Your task to perform on an android device: open app "DoorDash - Food Delivery" (install if not already installed) Image 0: 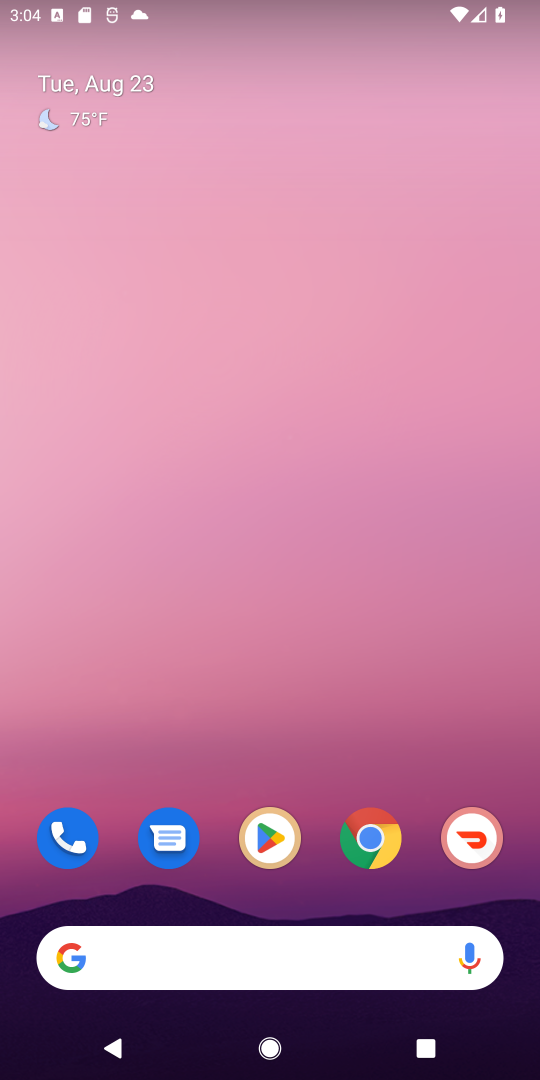
Step 0: click (260, 819)
Your task to perform on an android device: open app "DoorDash - Food Delivery" (install if not already installed) Image 1: 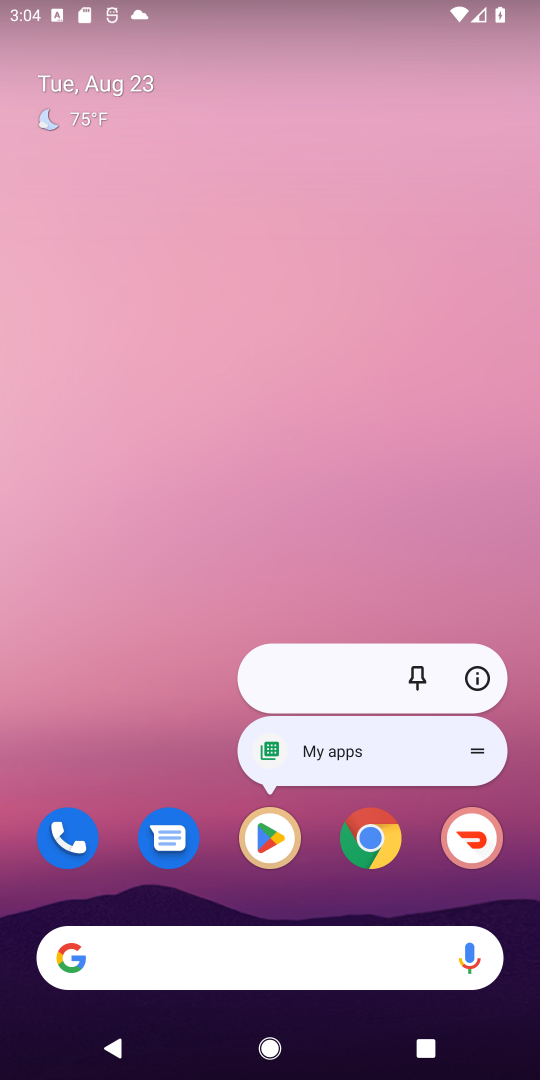
Step 1: click (275, 866)
Your task to perform on an android device: open app "DoorDash - Food Delivery" (install if not already installed) Image 2: 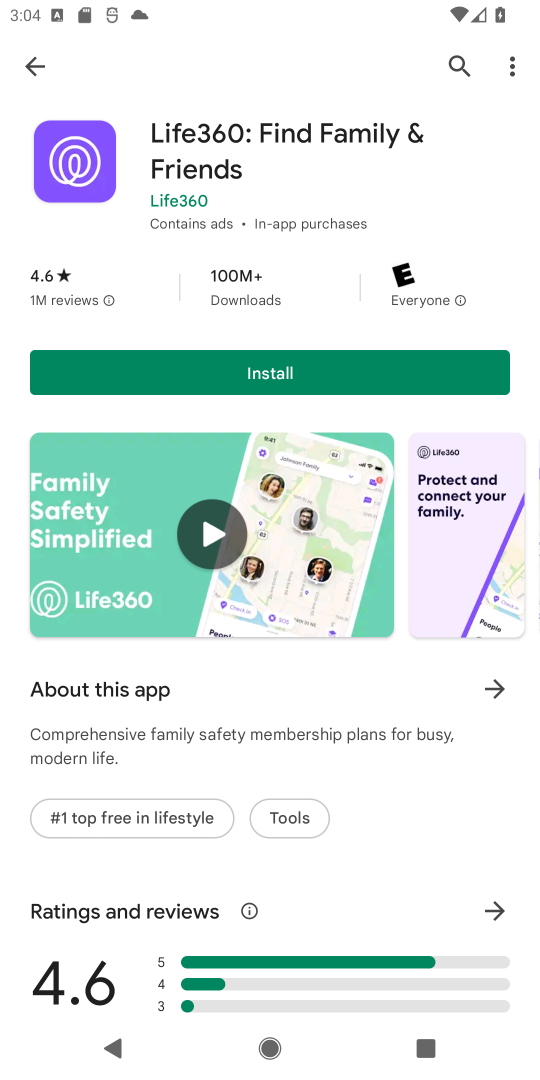
Step 2: click (37, 74)
Your task to perform on an android device: open app "DoorDash - Food Delivery" (install if not already installed) Image 3: 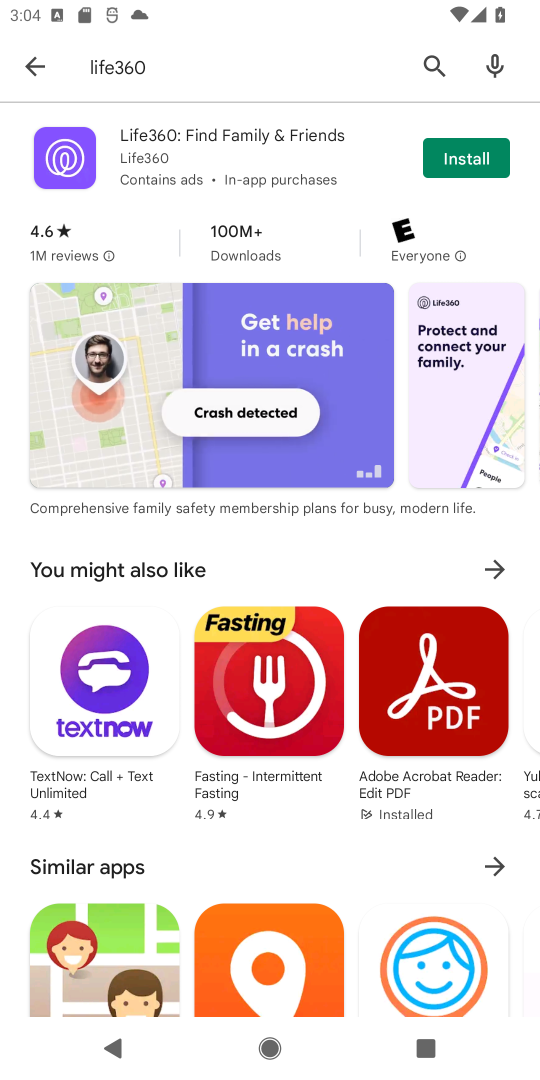
Step 3: click (52, 70)
Your task to perform on an android device: open app "DoorDash - Food Delivery" (install if not already installed) Image 4: 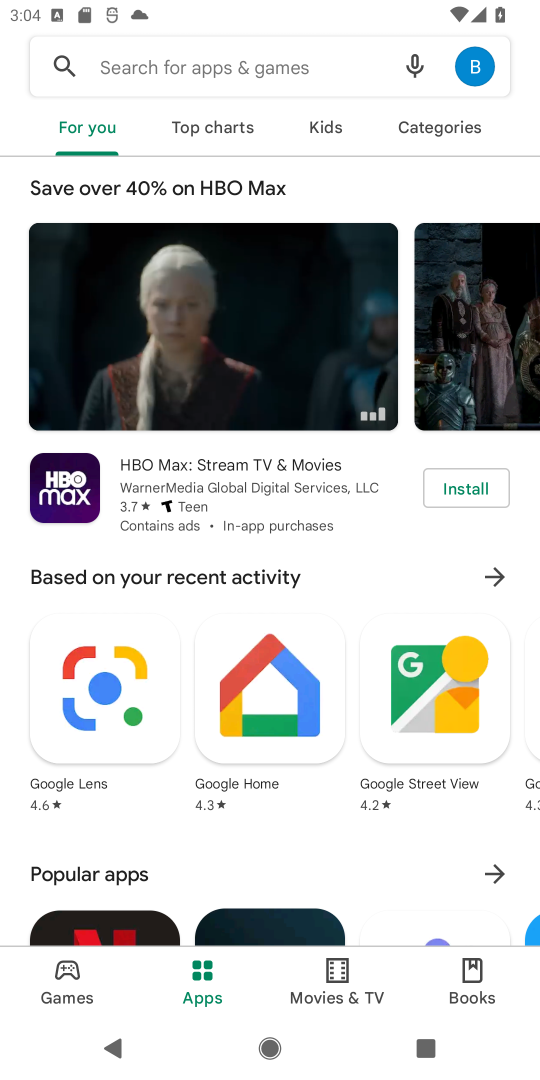
Step 4: click (126, 66)
Your task to perform on an android device: open app "DoorDash - Food Delivery" (install if not already installed) Image 5: 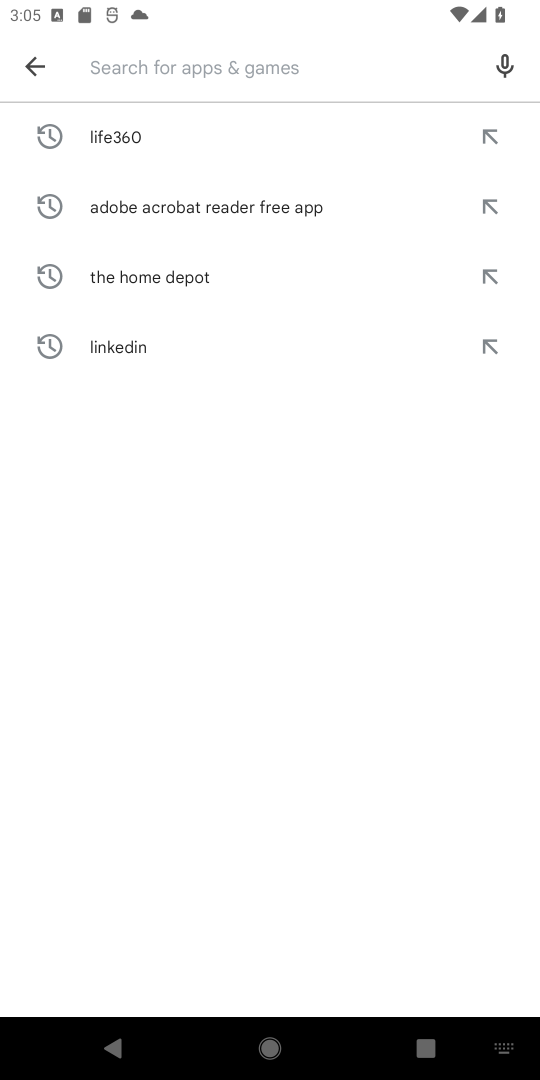
Step 5: type "DoorDash"
Your task to perform on an android device: open app "DoorDash - Food Delivery" (install if not already installed) Image 6: 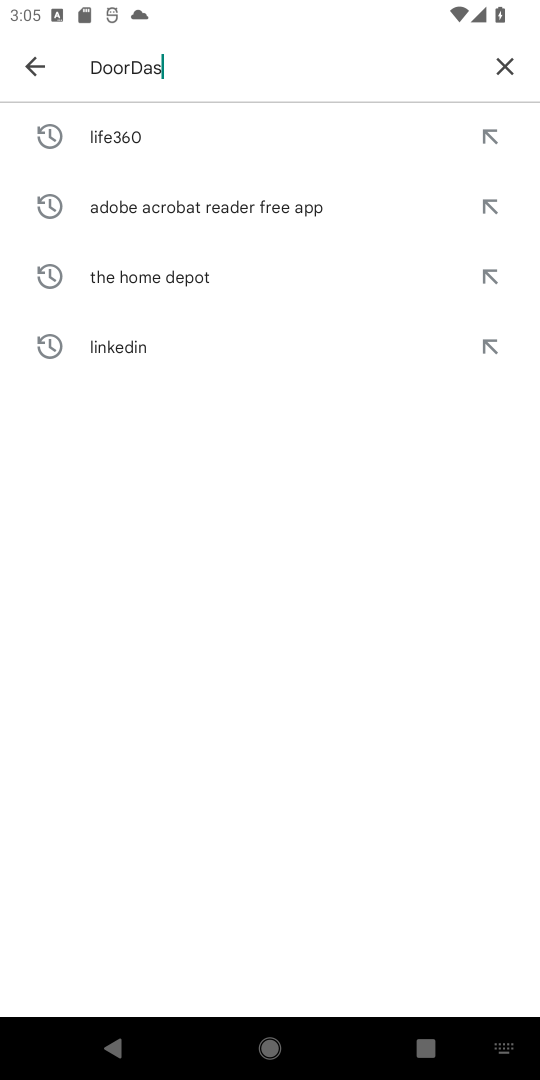
Step 6: type ""
Your task to perform on an android device: open app "DoorDash - Food Delivery" (install if not already installed) Image 7: 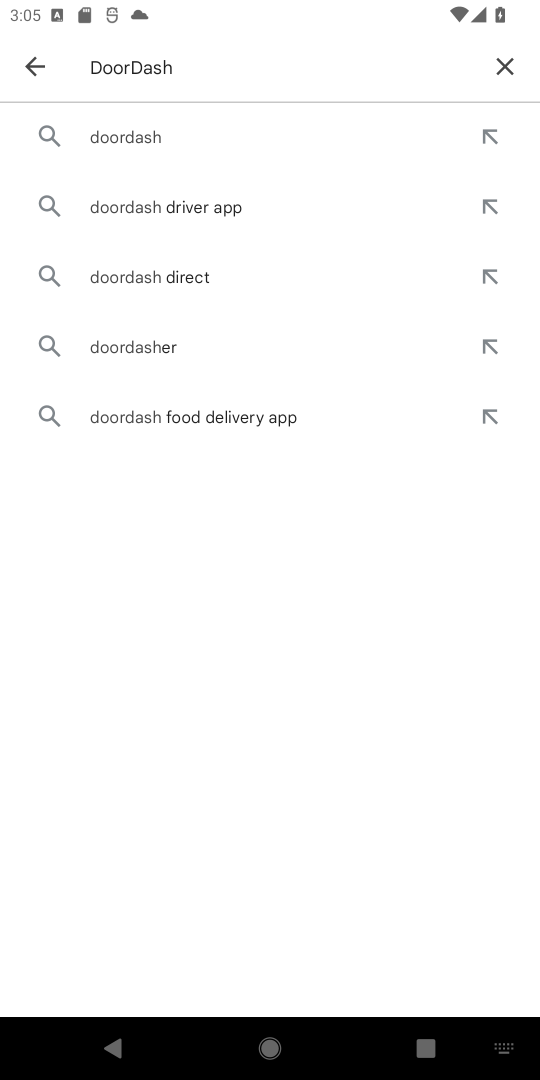
Step 7: click (151, 130)
Your task to perform on an android device: open app "DoorDash - Food Delivery" (install if not already installed) Image 8: 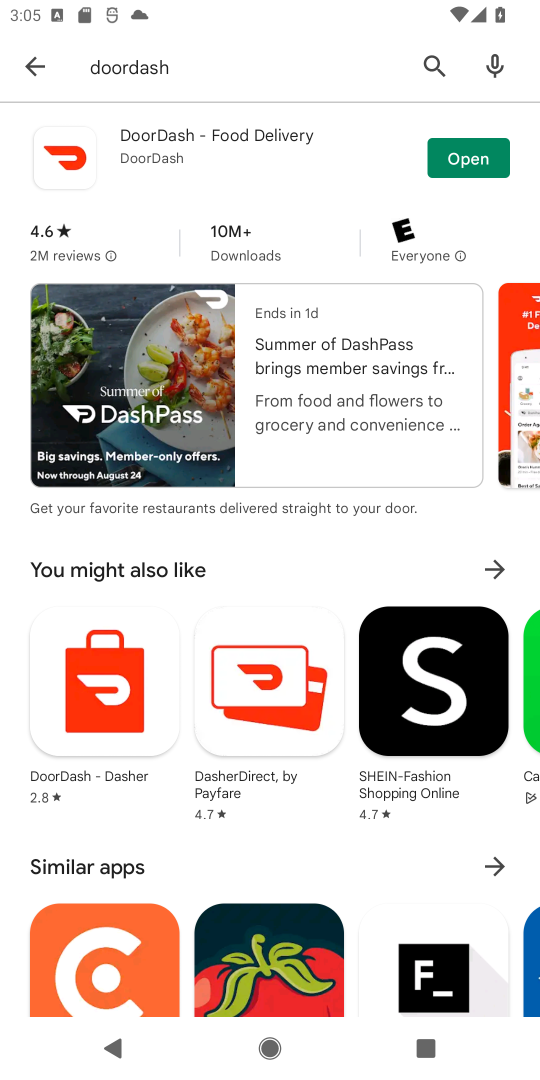
Step 8: click (457, 167)
Your task to perform on an android device: open app "DoorDash - Food Delivery" (install if not already installed) Image 9: 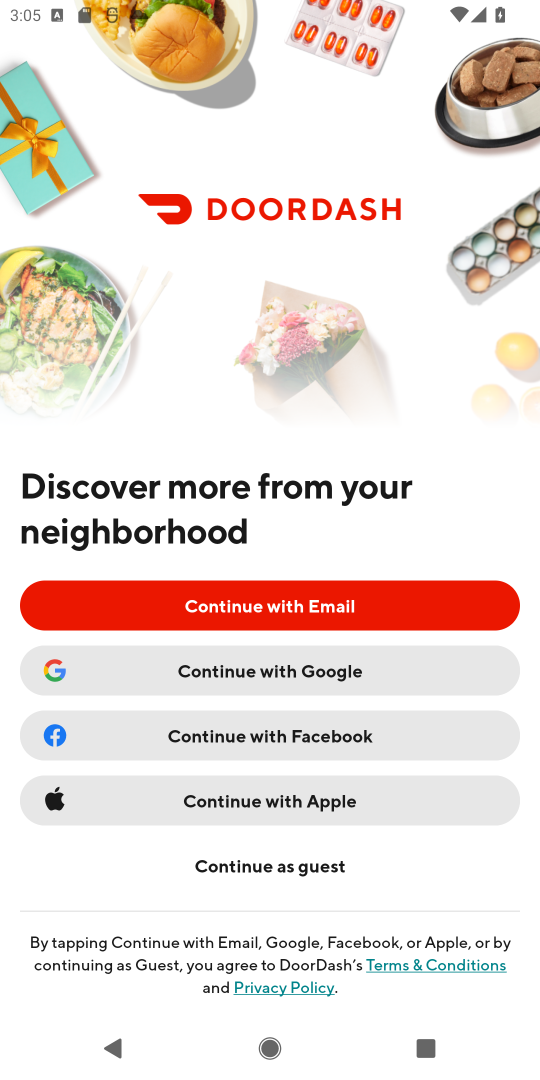
Step 9: task complete